Your task to perform on an android device: change text size in settings app Image 0: 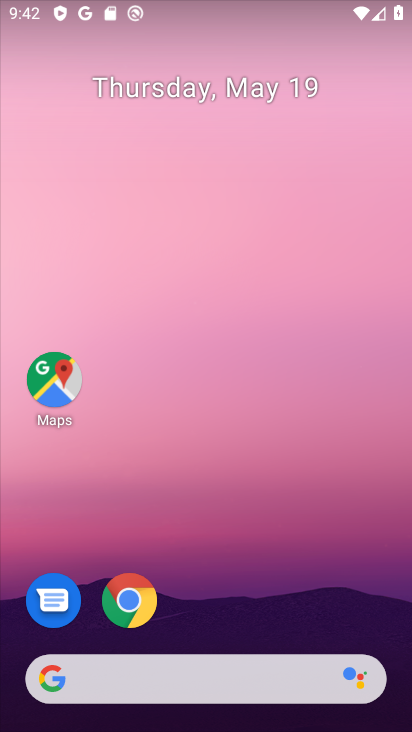
Step 0: drag from (225, 541) to (197, 19)
Your task to perform on an android device: change text size in settings app Image 1: 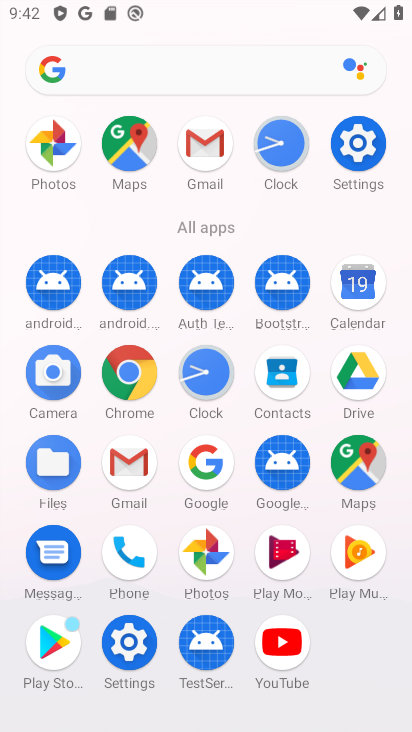
Step 1: drag from (8, 528) to (2, 188)
Your task to perform on an android device: change text size in settings app Image 2: 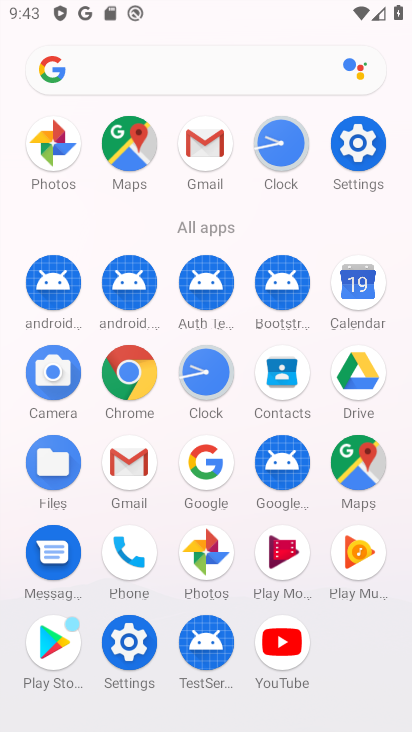
Step 2: click (127, 638)
Your task to perform on an android device: change text size in settings app Image 3: 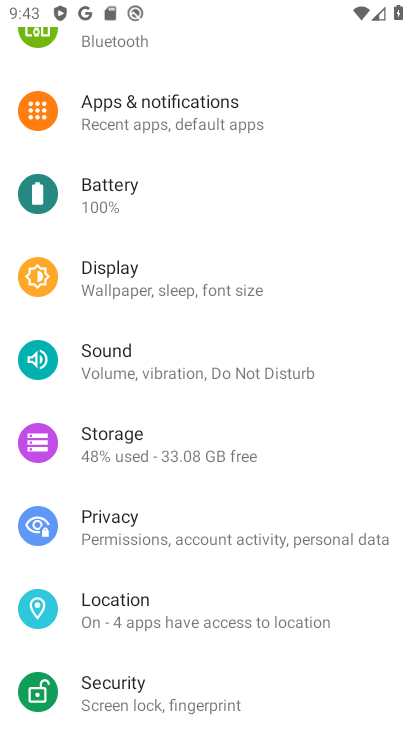
Step 3: drag from (242, 148) to (249, 532)
Your task to perform on an android device: change text size in settings app Image 4: 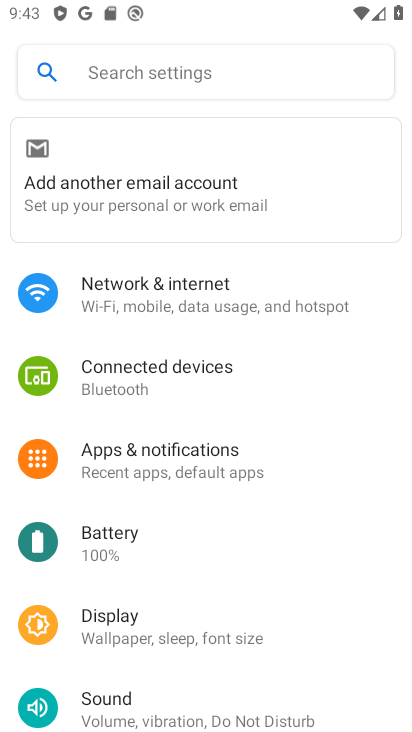
Step 4: click (189, 624)
Your task to perform on an android device: change text size in settings app Image 5: 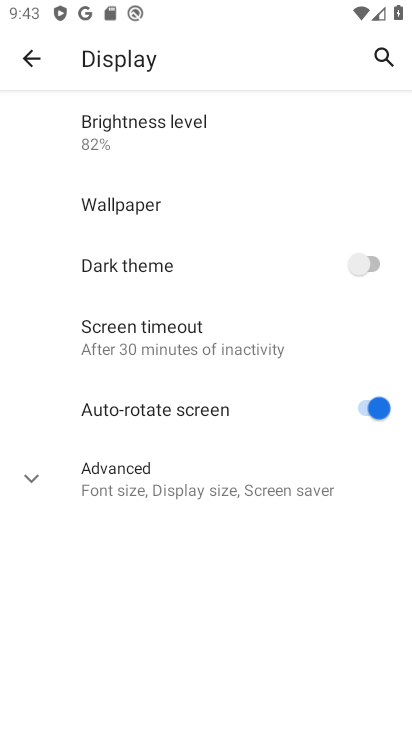
Step 5: click (147, 493)
Your task to perform on an android device: change text size in settings app Image 6: 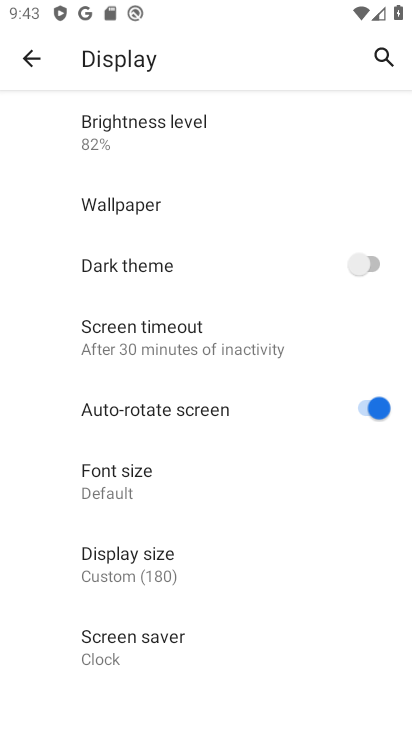
Step 6: click (156, 477)
Your task to perform on an android device: change text size in settings app Image 7: 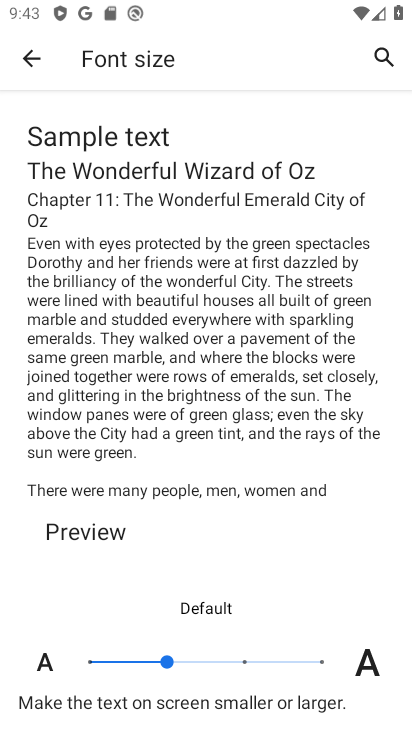
Step 7: click (311, 654)
Your task to perform on an android device: change text size in settings app Image 8: 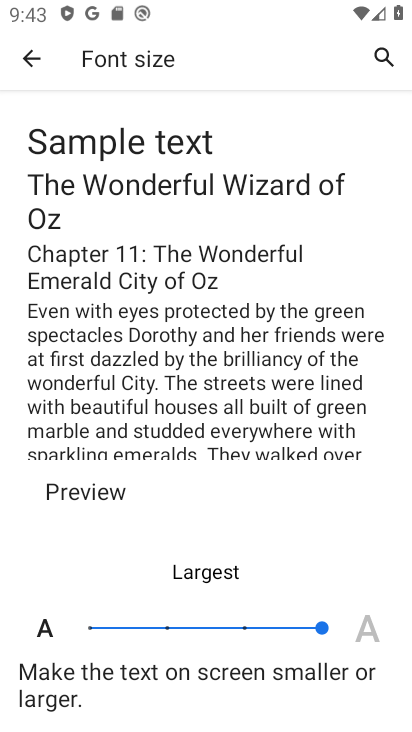
Step 8: task complete